Your task to perform on an android device: Open Google Maps and go to "Timeline" Image 0: 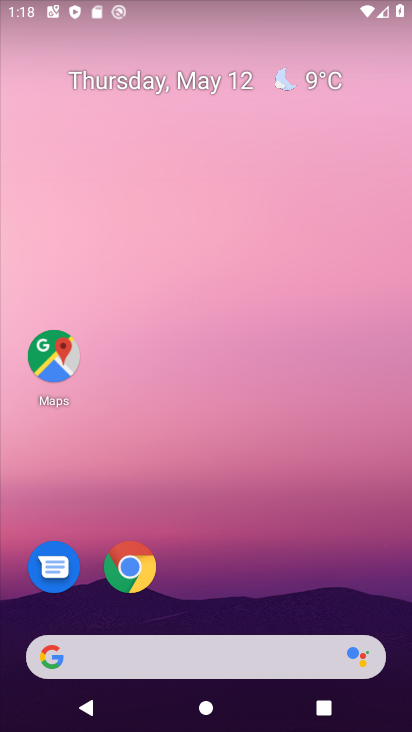
Step 0: click (131, 564)
Your task to perform on an android device: Open Google Maps and go to "Timeline" Image 1: 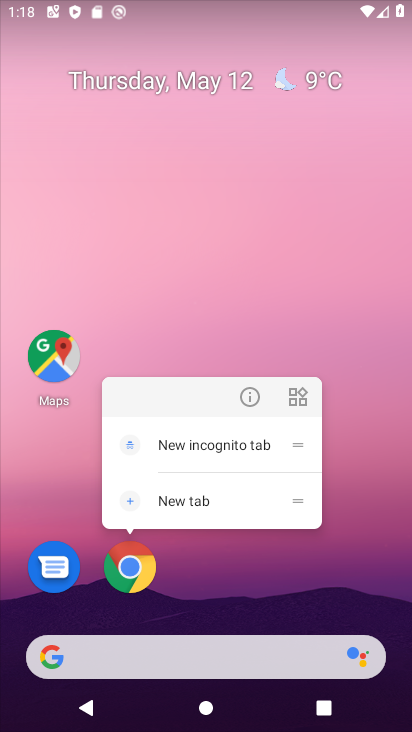
Step 1: click (50, 342)
Your task to perform on an android device: Open Google Maps and go to "Timeline" Image 2: 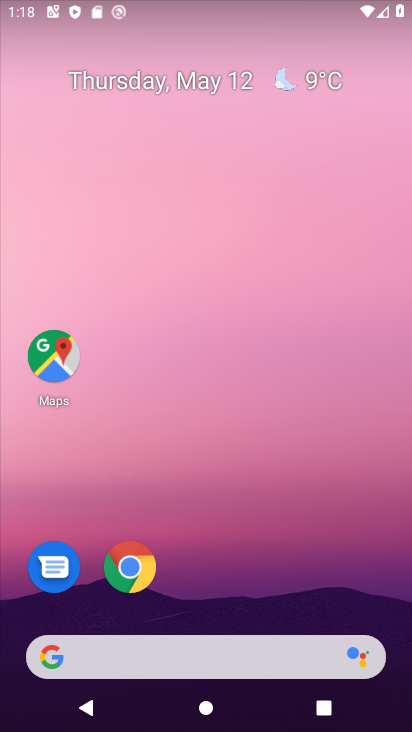
Step 2: click (55, 351)
Your task to perform on an android device: Open Google Maps and go to "Timeline" Image 3: 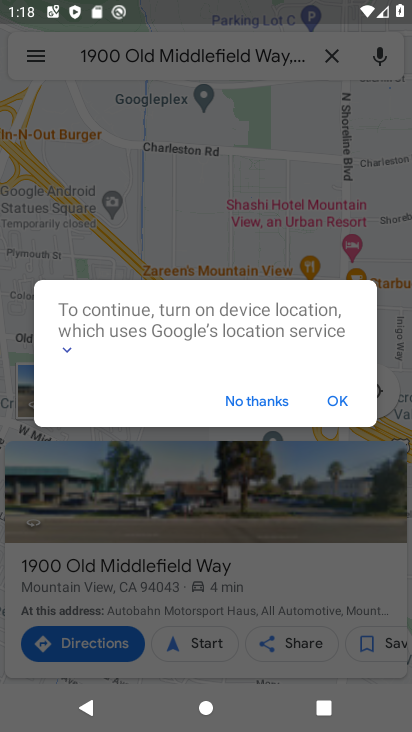
Step 3: click (335, 397)
Your task to perform on an android device: Open Google Maps and go to "Timeline" Image 4: 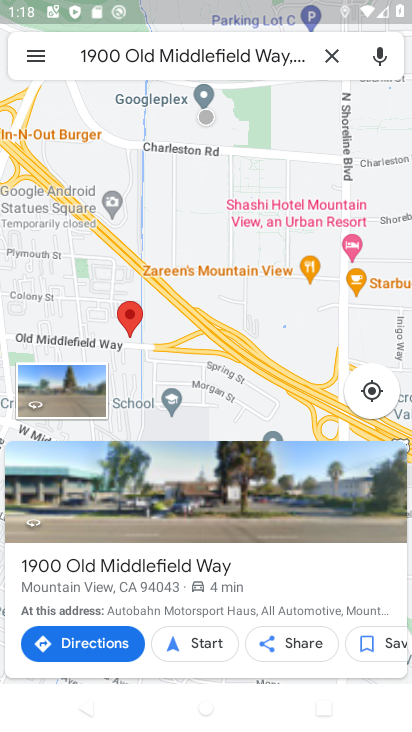
Step 4: click (29, 58)
Your task to perform on an android device: Open Google Maps and go to "Timeline" Image 5: 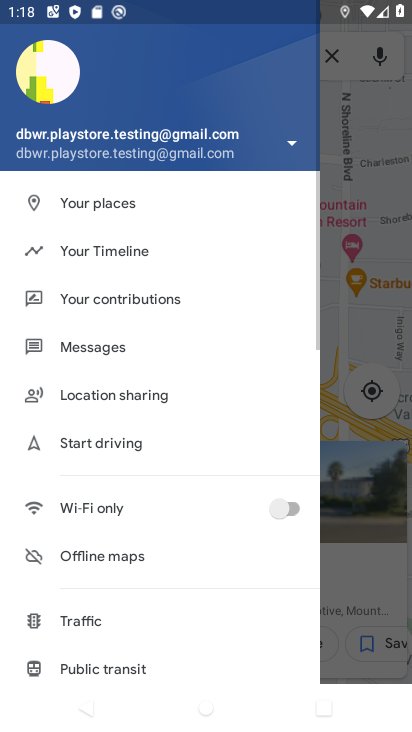
Step 5: click (119, 250)
Your task to perform on an android device: Open Google Maps and go to "Timeline" Image 6: 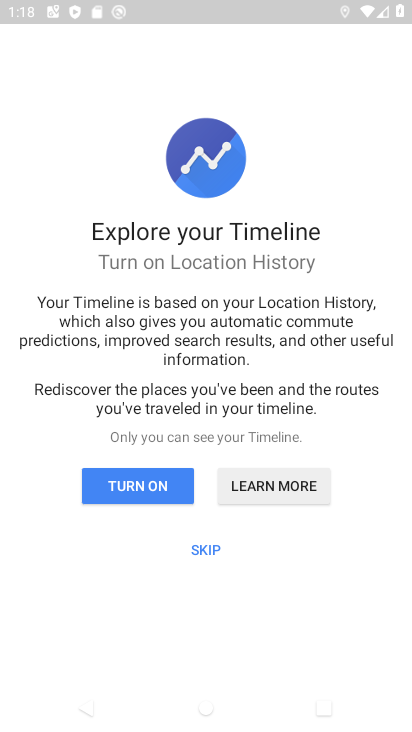
Step 6: click (137, 483)
Your task to perform on an android device: Open Google Maps and go to "Timeline" Image 7: 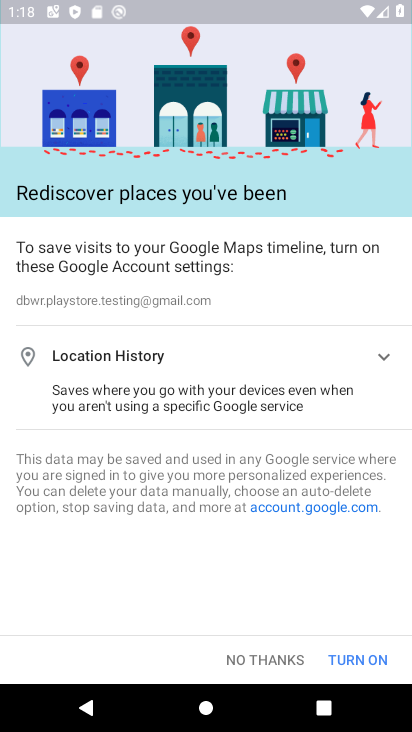
Step 7: click (362, 656)
Your task to perform on an android device: Open Google Maps and go to "Timeline" Image 8: 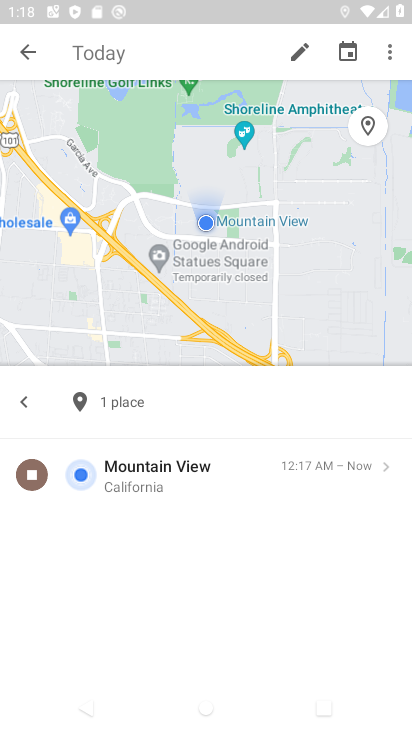
Step 8: task complete